Your task to perform on an android device: check data usage Image 0: 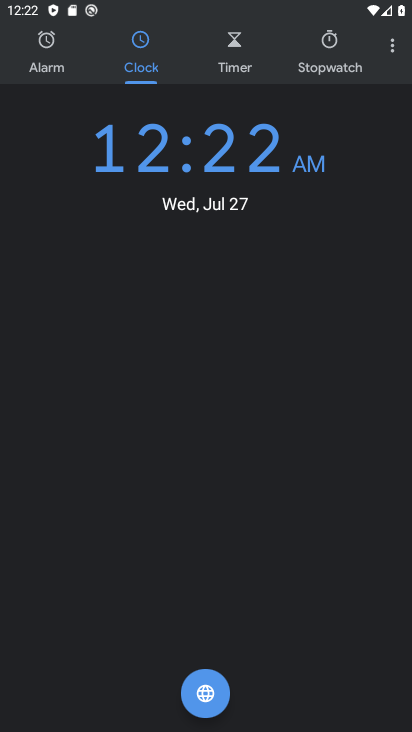
Step 0: press home button
Your task to perform on an android device: check data usage Image 1: 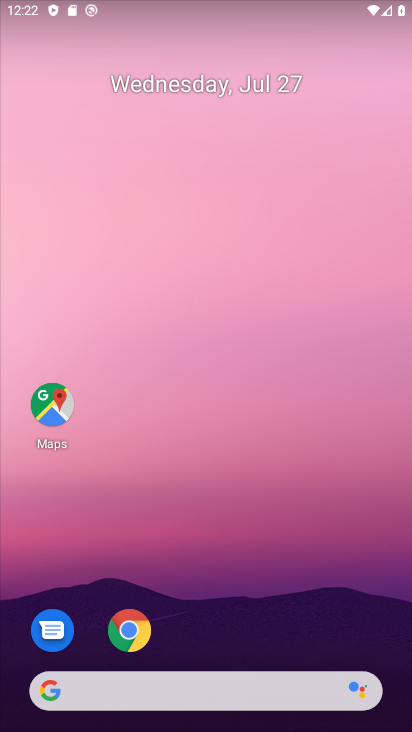
Step 1: drag from (266, 671) to (179, 58)
Your task to perform on an android device: check data usage Image 2: 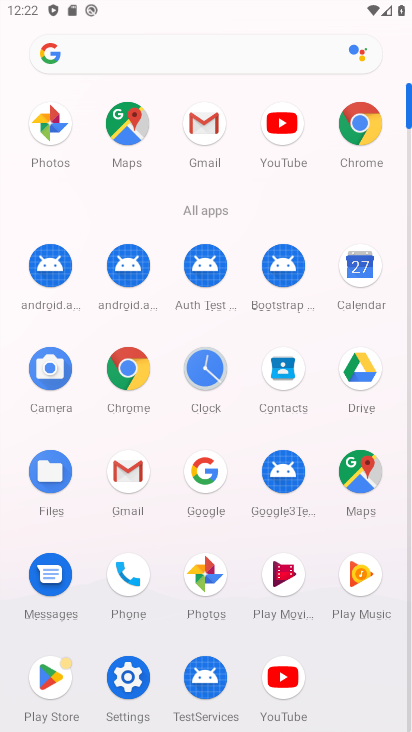
Step 2: click (137, 671)
Your task to perform on an android device: check data usage Image 3: 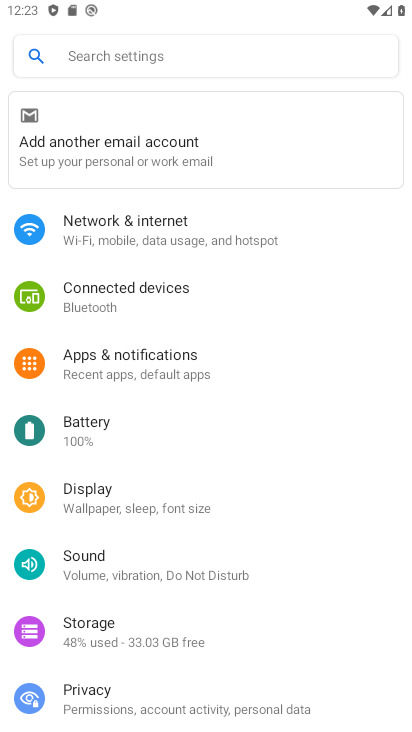
Step 3: click (93, 227)
Your task to perform on an android device: check data usage Image 4: 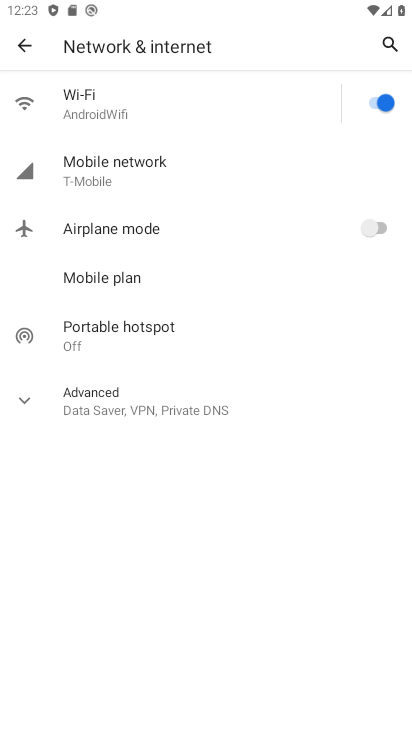
Step 4: click (91, 170)
Your task to perform on an android device: check data usage Image 5: 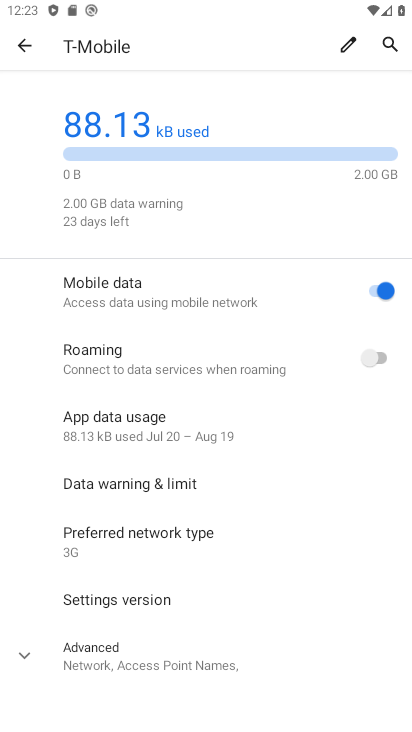
Step 5: task complete